Your task to perform on an android device: toggle wifi Image 0: 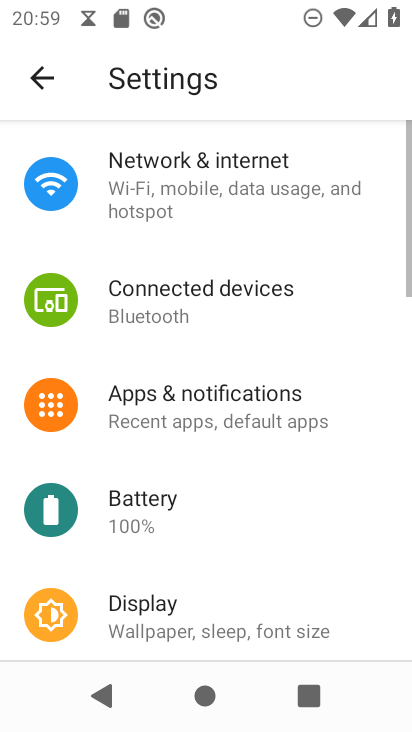
Step 0: press home button
Your task to perform on an android device: toggle wifi Image 1: 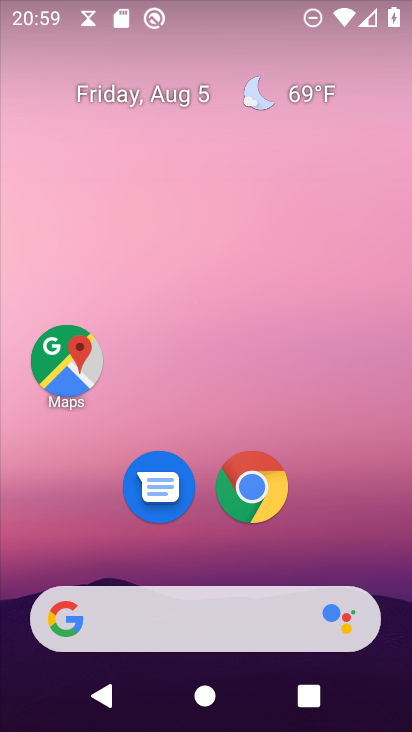
Step 1: drag from (196, 621) to (346, 94)
Your task to perform on an android device: toggle wifi Image 2: 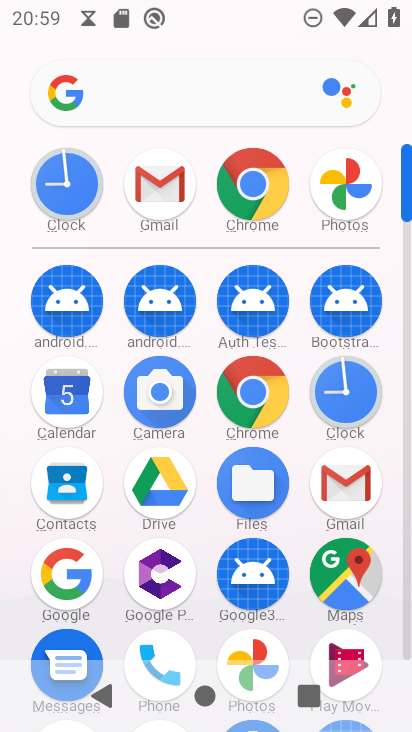
Step 2: drag from (261, 409) to (356, 139)
Your task to perform on an android device: toggle wifi Image 3: 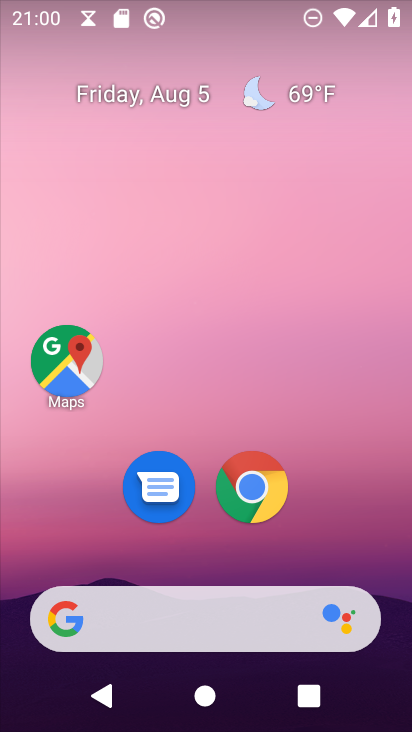
Step 3: drag from (198, 605) to (326, 26)
Your task to perform on an android device: toggle wifi Image 4: 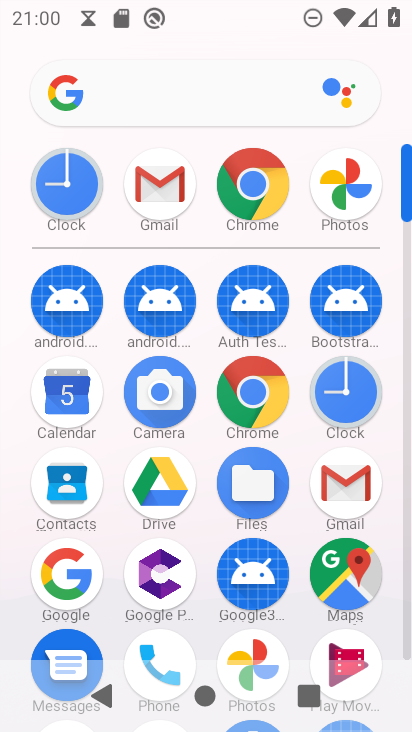
Step 4: drag from (187, 560) to (313, 87)
Your task to perform on an android device: toggle wifi Image 5: 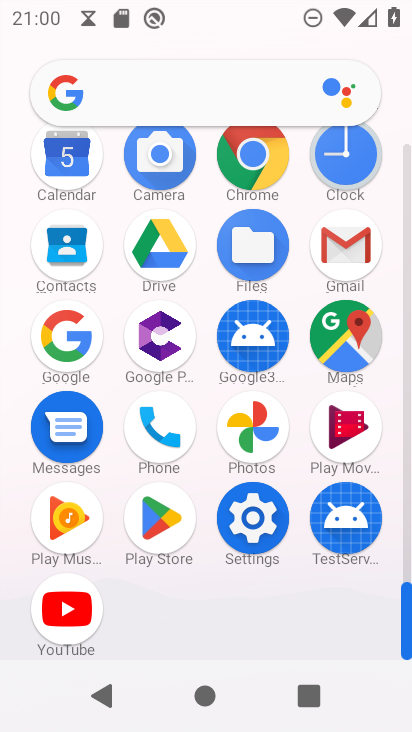
Step 5: drag from (248, 518) to (244, 310)
Your task to perform on an android device: toggle wifi Image 6: 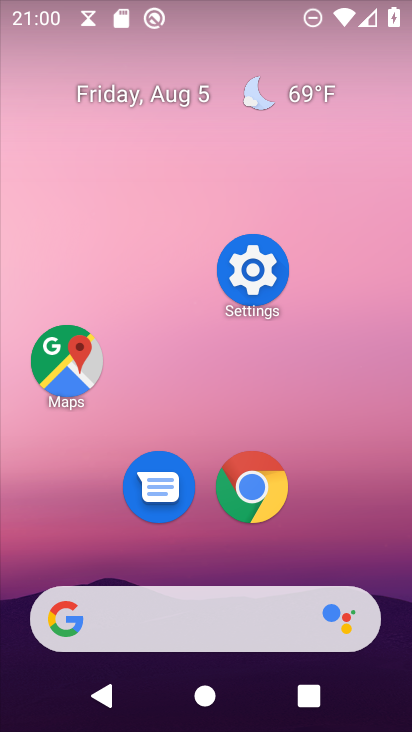
Step 6: click (244, 265)
Your task to perform on an android device: toggle wifi Image 7: 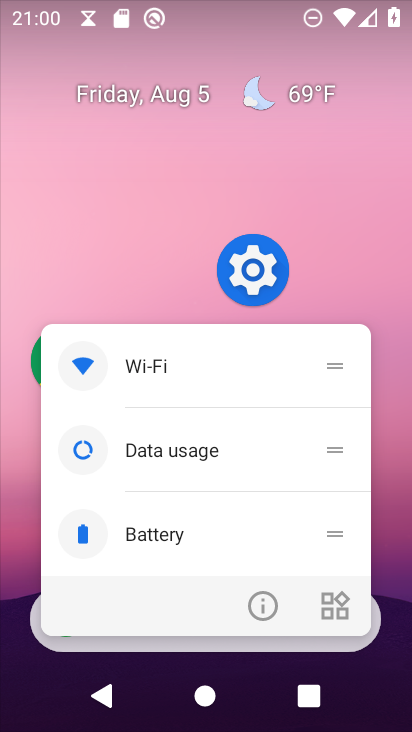
Step 7: click (244, 271)
Your task to perform on an android device: toggle wifi Image 8: 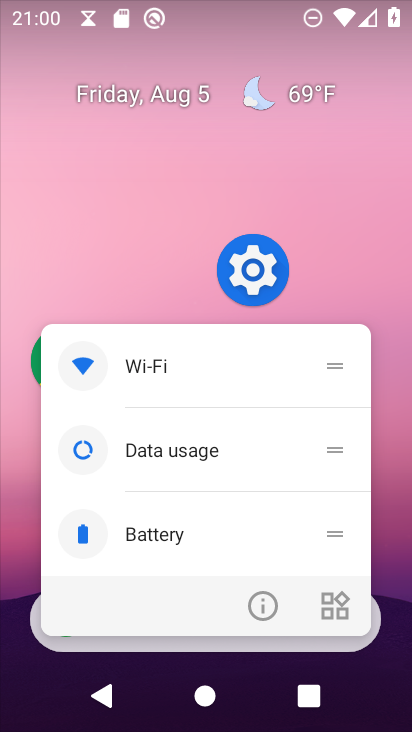
Step 8: click (248, 265)
Your task to perform on an android device: toggle wifi Image 9: 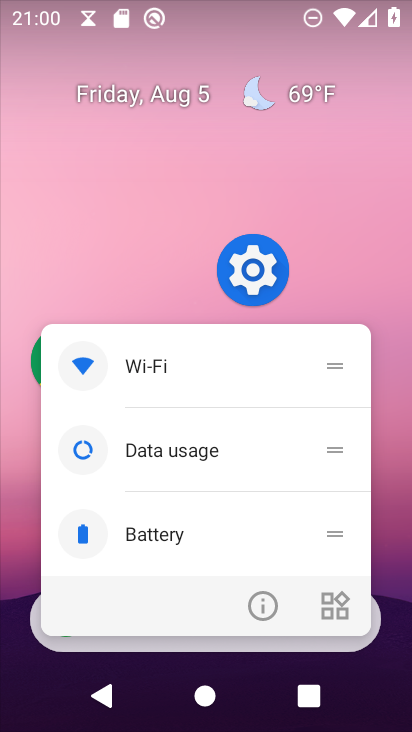
Step 9: click (252, 282)
Your task to perform on an android device: toggle wifi Image 10: 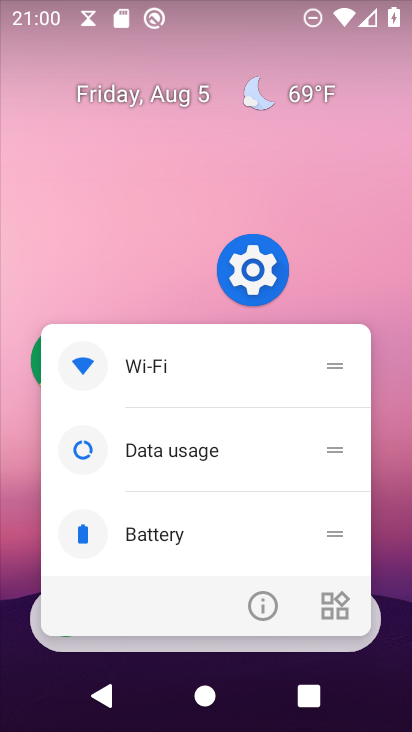
Step 10: click (249, 264)
Your task to perform on an android device: toggle wifi Image 11: 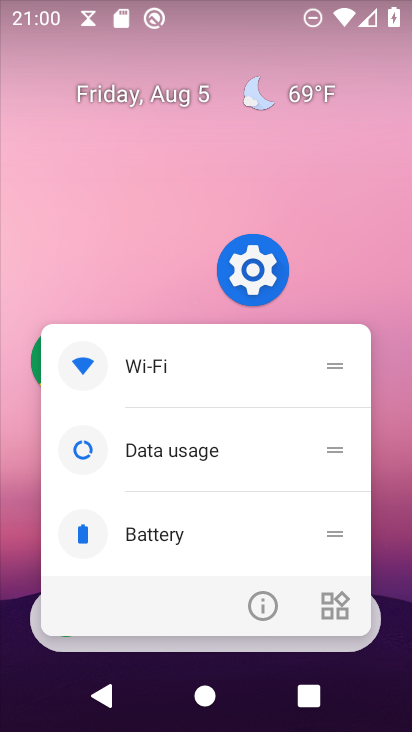
Step 11: click (254, 265)
Your task to perform on an android device: toggle wifi Image 12: 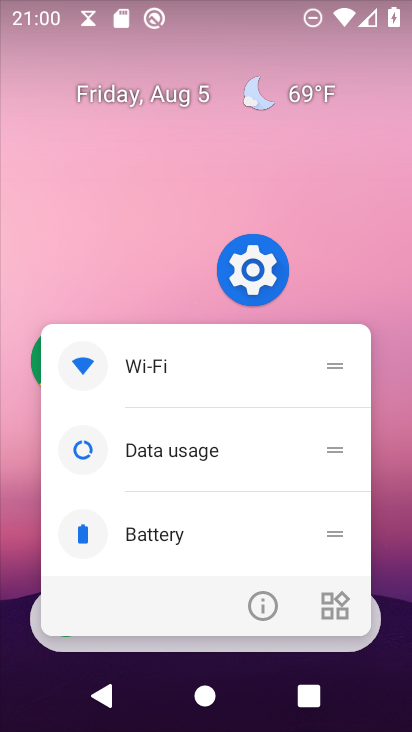
Step 12: click (254, 268)
Your task to perform on an android device: toggle wifi Image 13: 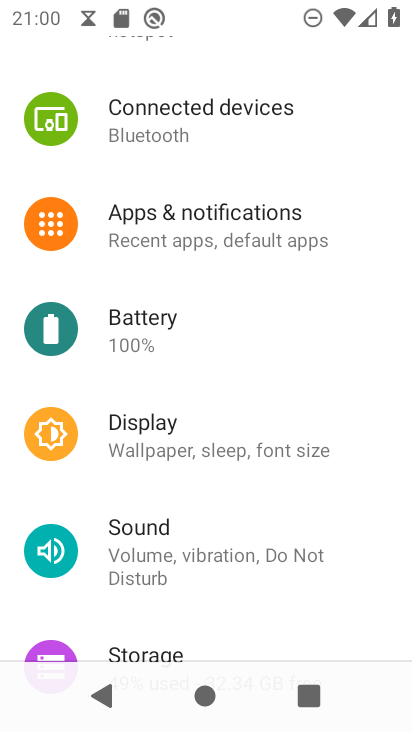
Step 13: drag from (345, 148) to (274, 588)
Your task to perform on an android device: toggle wifi Image 14: 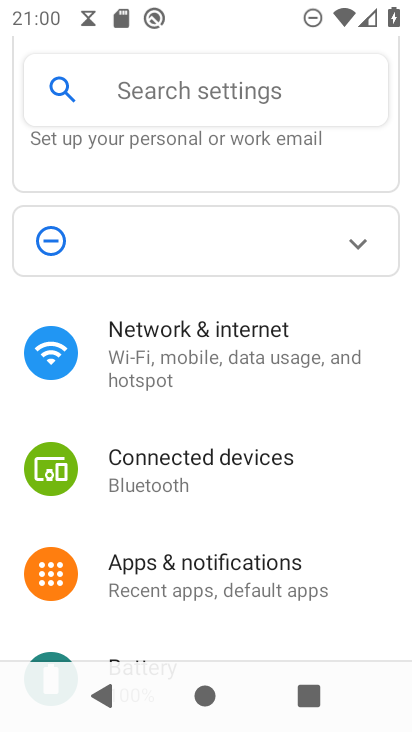
Step 14: click (229, 355)
Your task to perform on an android device: toggle wifi Image 15: 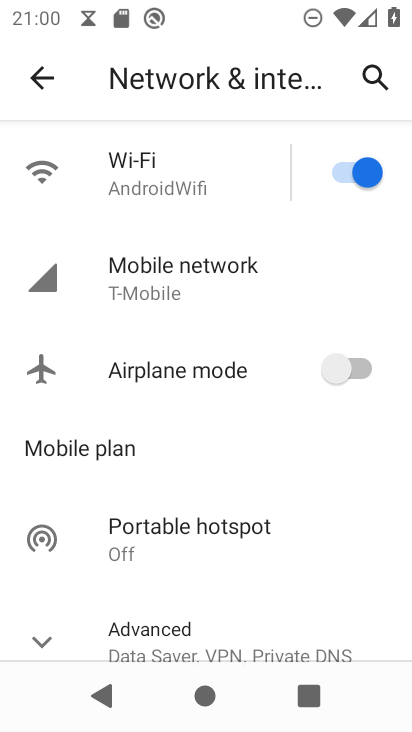
Step 15: click (340, 174)
Your task to perform on an android device: toggle wifi Image 16: 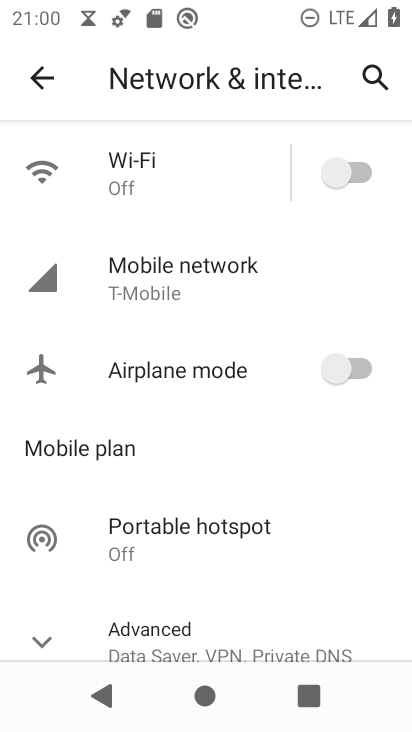
Step 16: click (367, 175)
Your task to perform on an android device: toggle wifi Image 17: 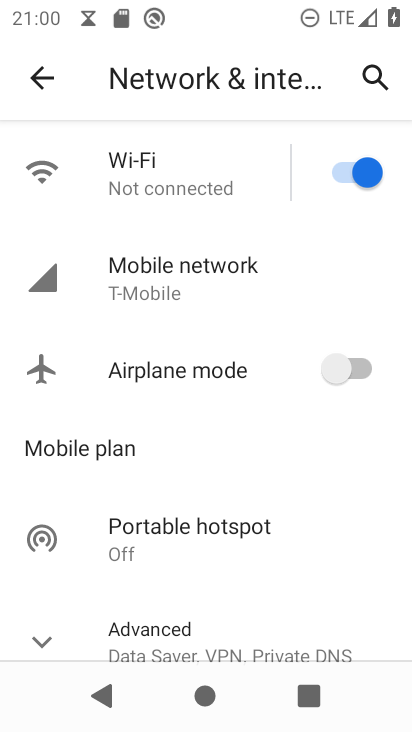
Step 17: task complete